Your task to perform on an android device: make emails show in primary in the gmail app Image 0: 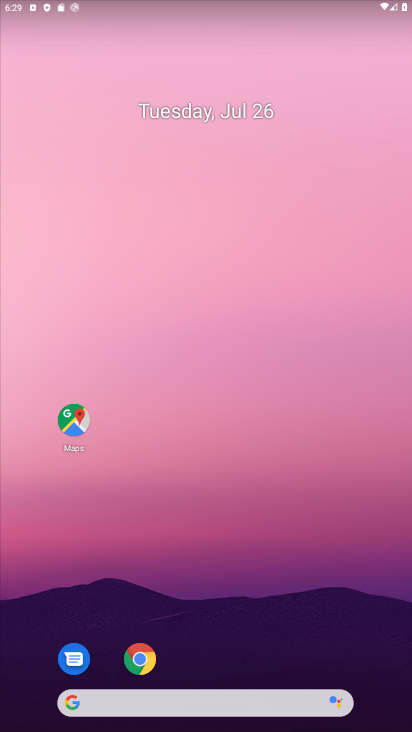
Step 0: drag from (203, 603) to (164, 289)
Your task to perform on an android device: make emails show in primary in the gmail app Image 1: 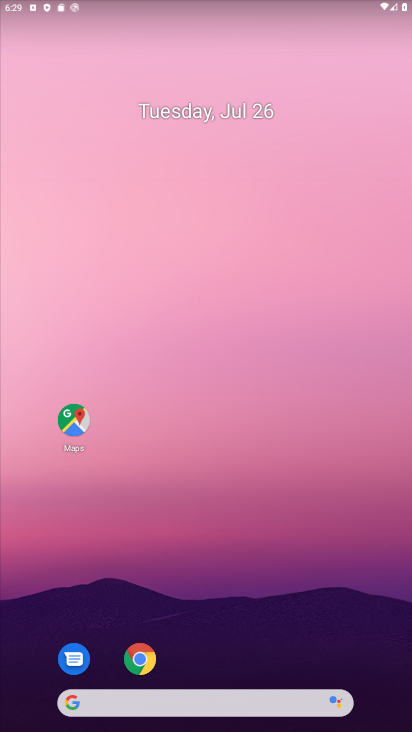
Step 1: drag from (255, 564) to (221, 1)
Your task to perform on an android device: make emails show in primary in the gmail app Image 2: 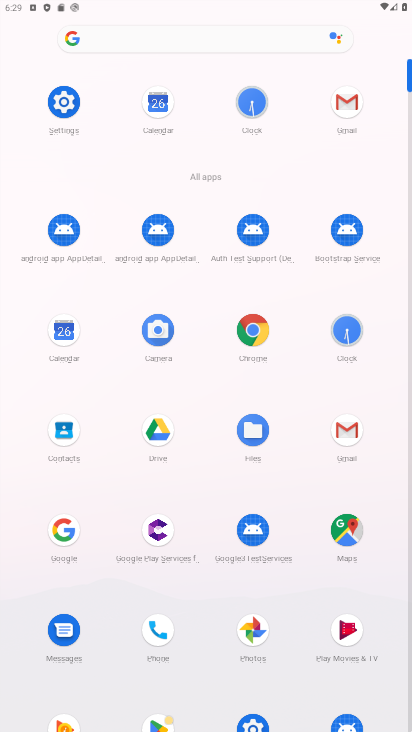
Step 2: click (346, 429)
Your task to perform on an android device: make emails show in primary in the gmail app Image 3: 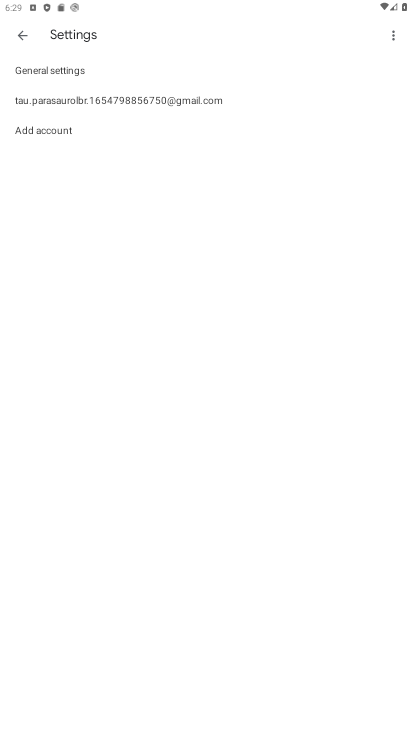
Step 3: click (18, 36)
Your task to perform on an android device: make emails show in primary in the gmail app Image 4: 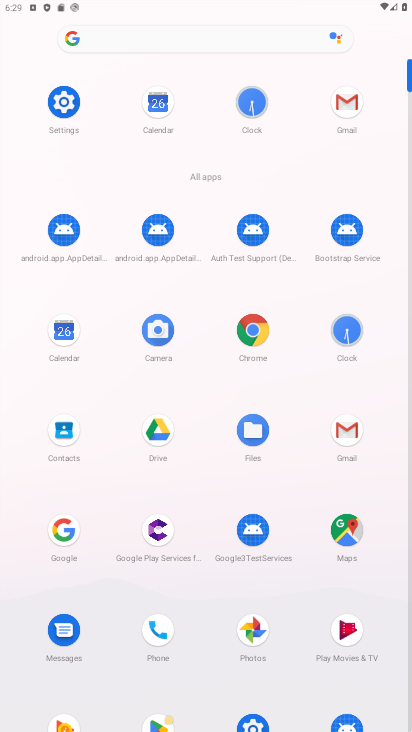
Step 4: click (350, 114)
Your task to perform on an android device: make emails show in primary in the gmail app Image 5: 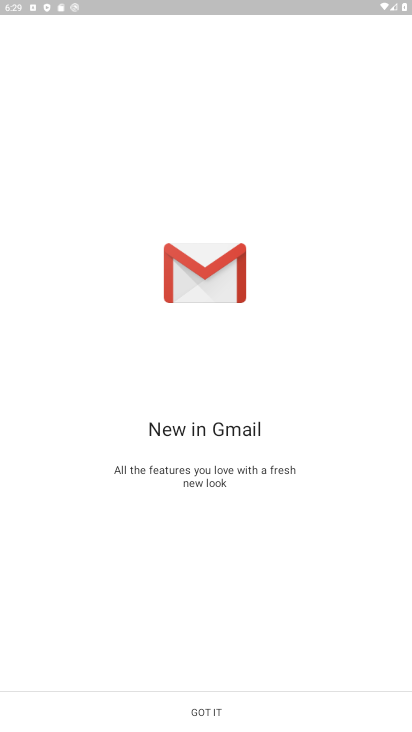
Step 5: click (205, 710)
Your task to perform on an android device: make emails show in primary in the gmail app Image 6: 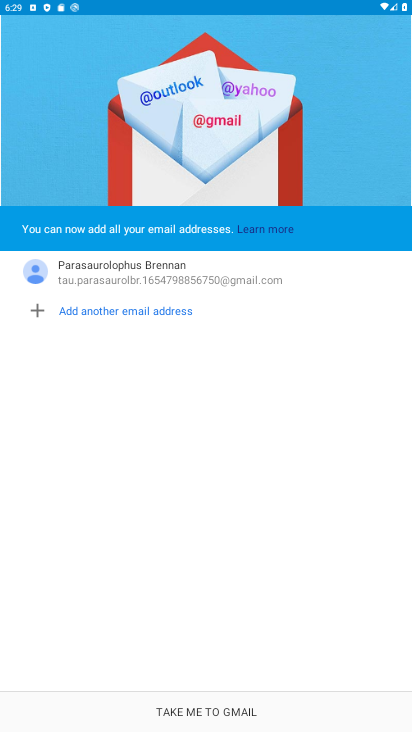
Step 6: click (205, 710)
Your task to perform on an android device: make emails show in primary in the gmail app Image 7: 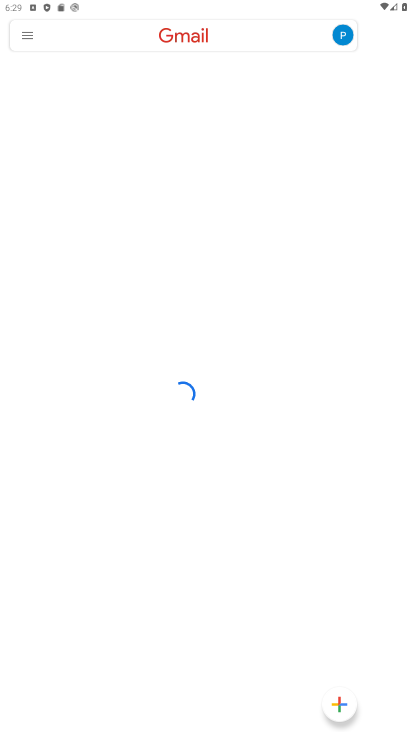
Step 7: task complete